Your task to perform on an android device: Open ESPN.com Image 0: 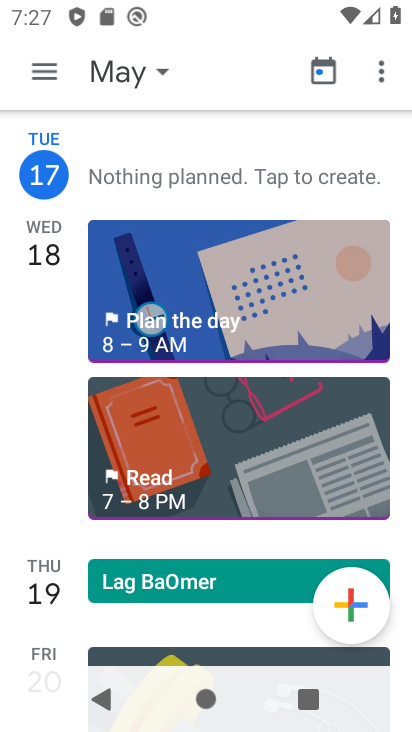
Step 0: press home button
Your task to perform on an android device: Open ESPN.com Image 1: 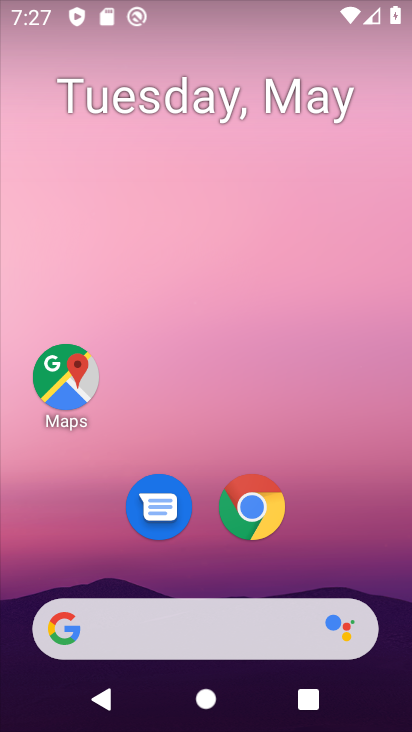
Step 1: click (257, 504)
Your task to perform on an android device: Open ESPN.com Image 2: 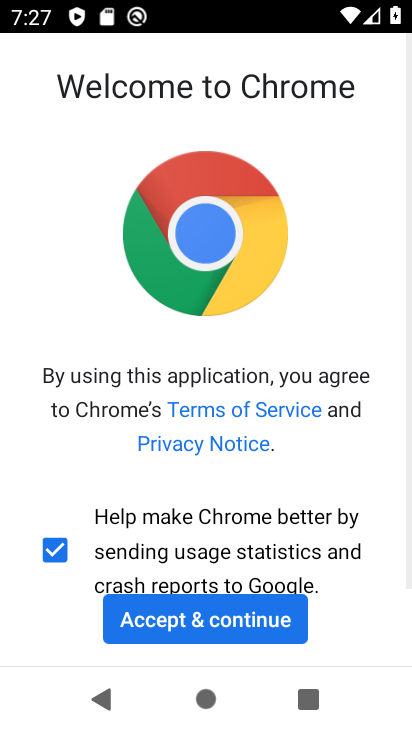
Step 2: click (229, 626)
Your task to perform on an android device: Open ESPN.com Image 3: 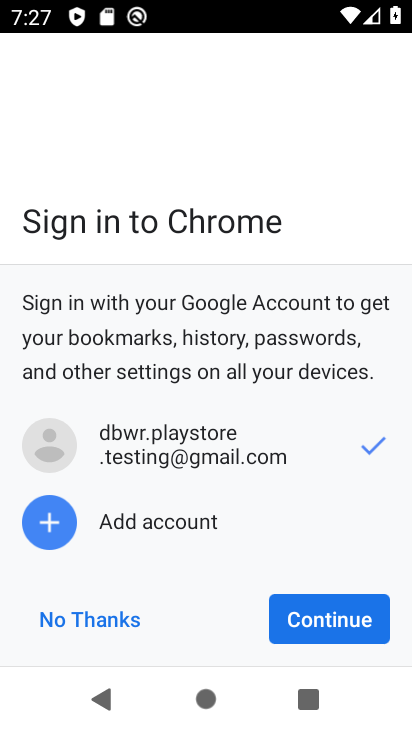
Step 3: click (353, 604)
Your task to perform on an android device: Open ESPN.com Image 4: 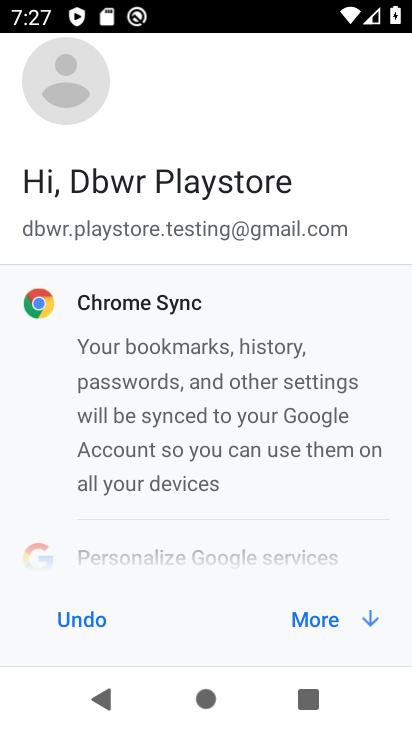
Step 4: click (352, 605)
Your task to perform on an android device: Open ESPN.com Image 5: 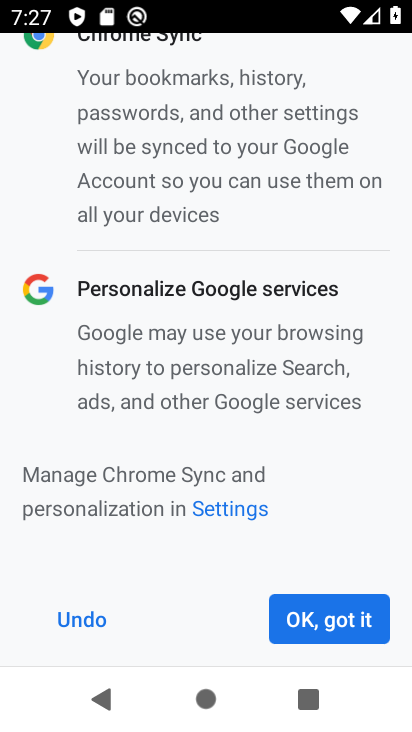
Step 5: click (350, 606)
Your task to perform on an android device: Open ESPN.com Image 6: 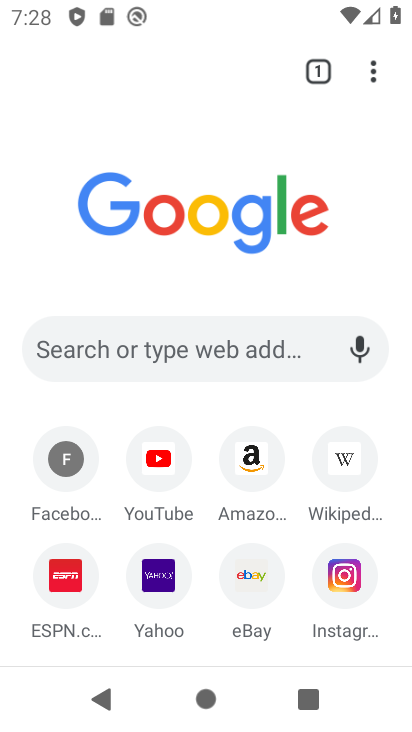
Step 6: click (192, 349)
Your task to perform on an android device: Open ESPN.com Image 7: 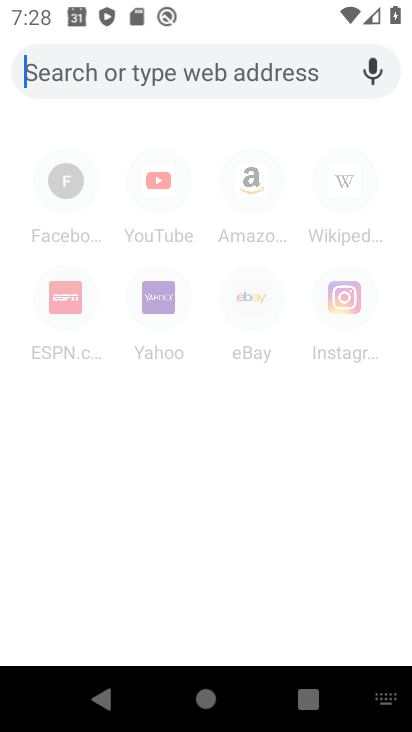
Step 7: type "ESPN.com"
Your task to perform on an android device: Open ESPN.com Image 8: 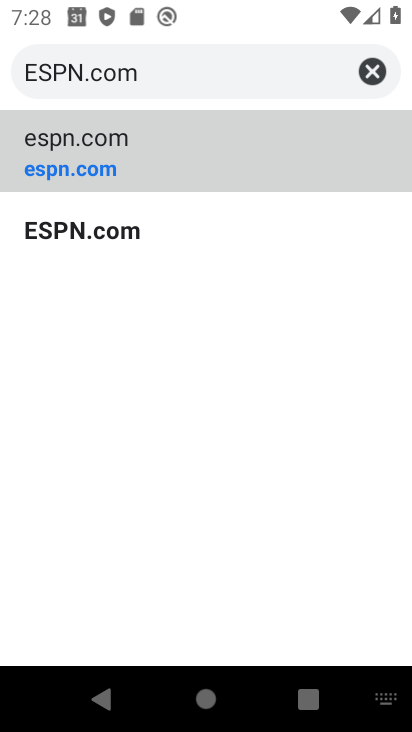
Step 8: click (32, 155)
Your task to perform on an android device: Open ESPN.com Image 9: 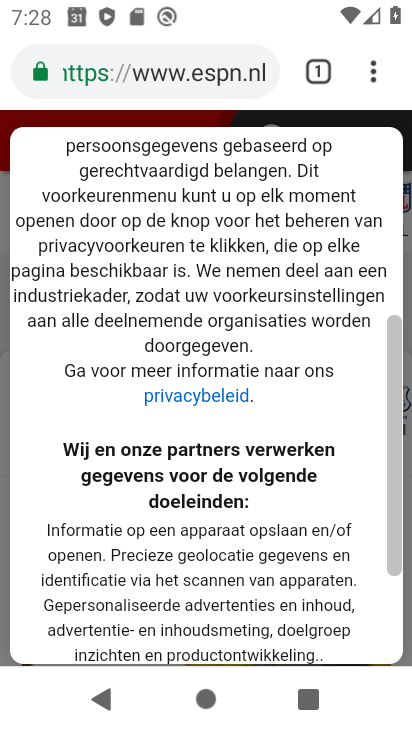
Step 9: task complete